Your task to perform on an android device: open app "Reddit" (install if not already installed), go to login, and select forgot password Image 0: 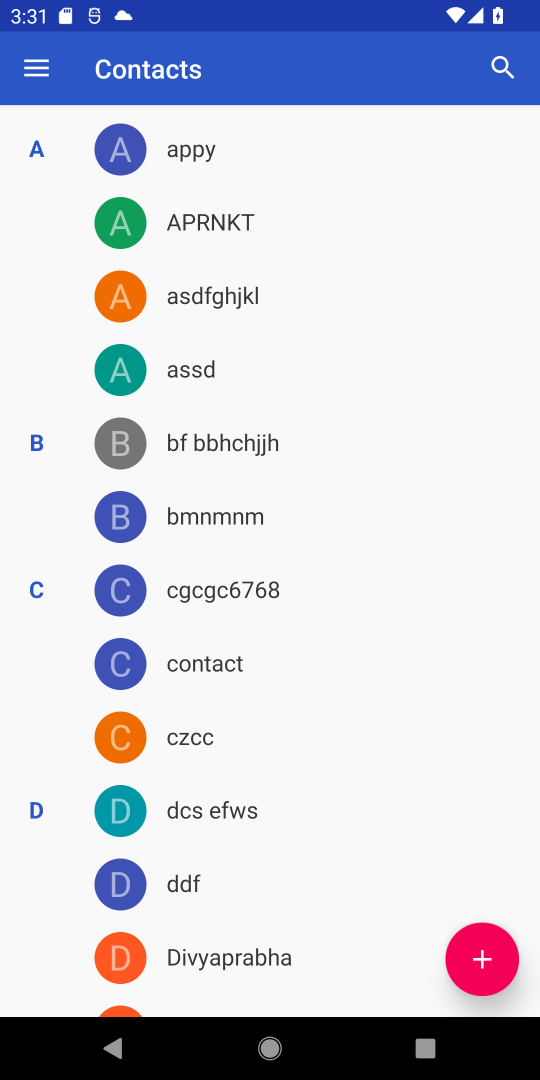
Step 0: press home button
Your task to perform on an android device: open app "Reddit" (install if not already installed), go to login, and select forgot password Image 1: 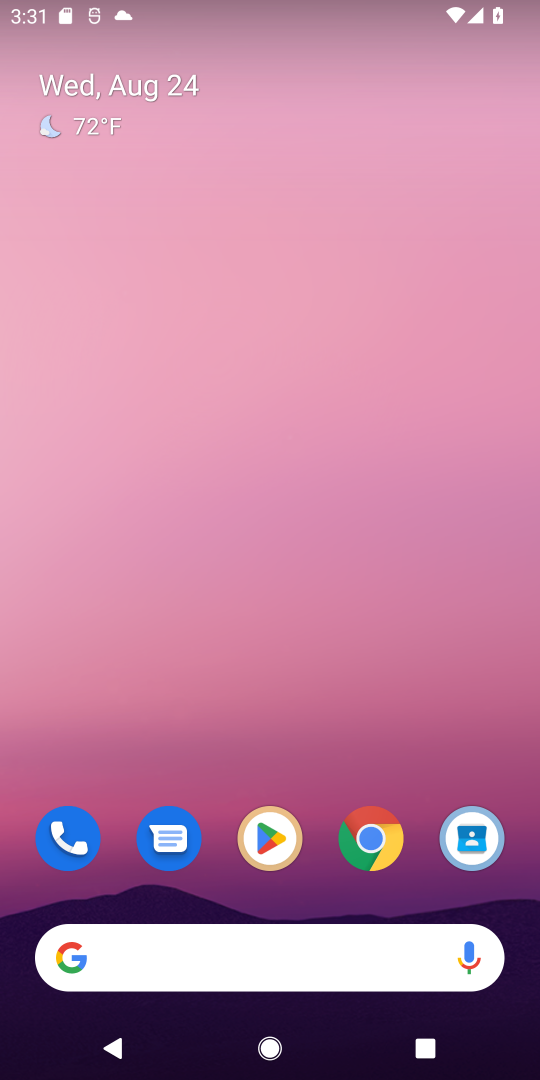
Step 1: click (266, 866)
Your task to perform on an android device: open app "Reddit" (install if not already installed), go to login, and select forgot password Image 2: 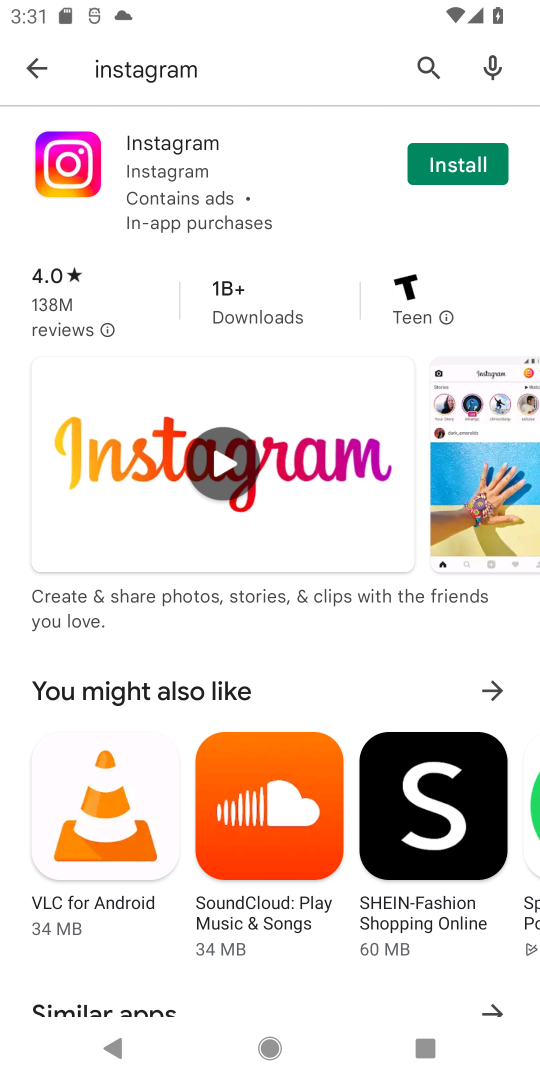
Step 2: click (45, 57)
Your task to perform on an android device: open app "Reddit" (install if not already installed), go to login, and select forgot password Image 3: 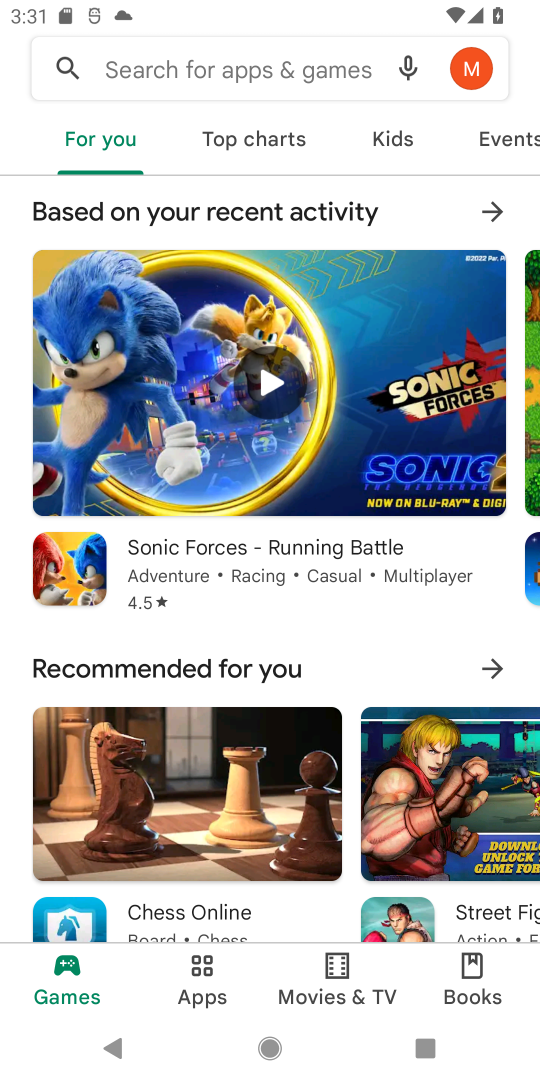
Step 3: click (188, 65)
Your task to perform on an android device: open app "Reddit" (install if not already installed), go to login, and select forgot password Image 4: 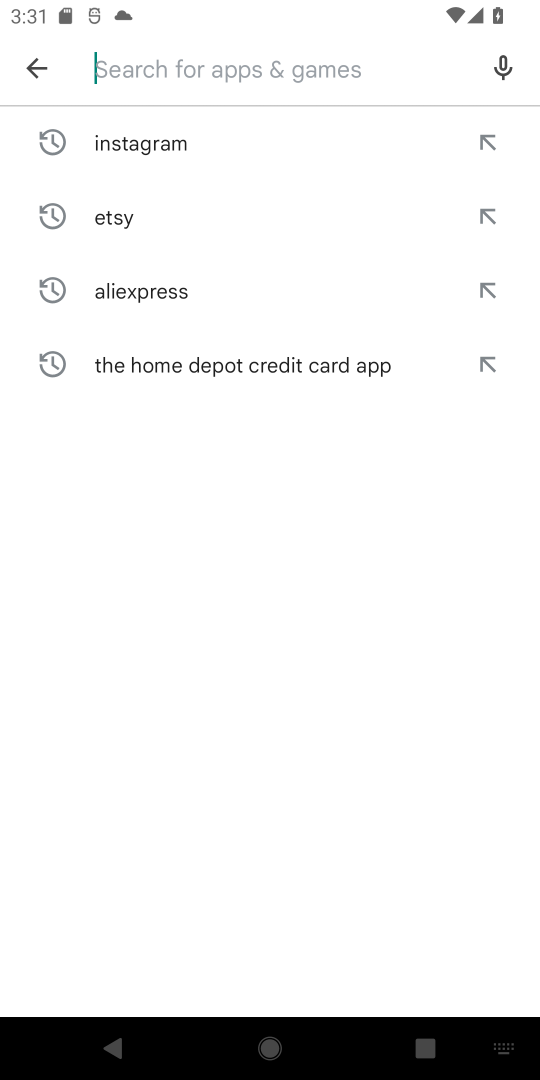
Step 4: type "Reddit"
Your task to perform on an android device: open app "Reddit" (install if not already installed), go to login, and select forgot password Image 5: 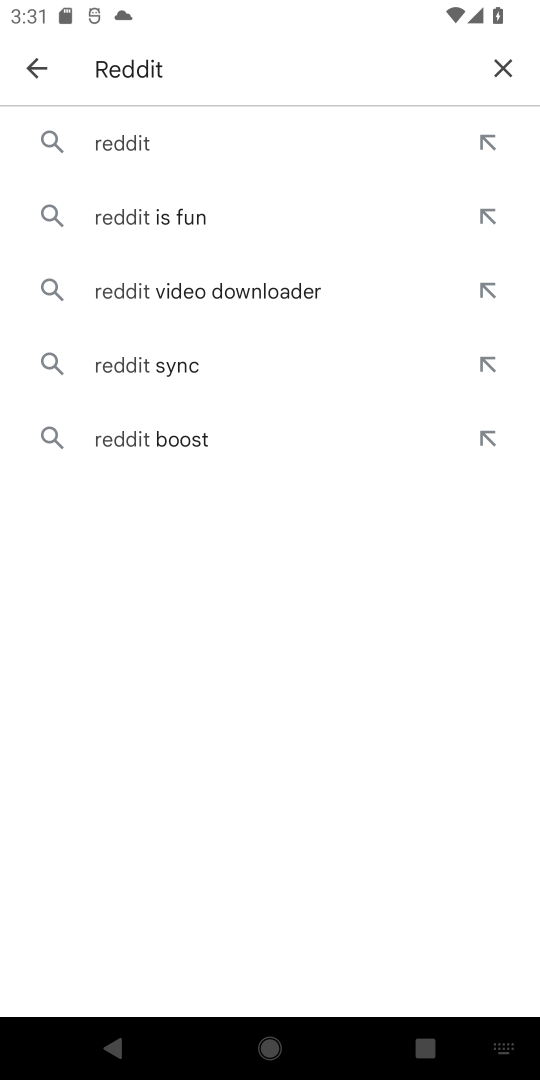
Step 5: click (120, 145)
Your task to perform on an android device: open app "Reddit" (install if not already installed), go to login, and select forgot password Image 6: 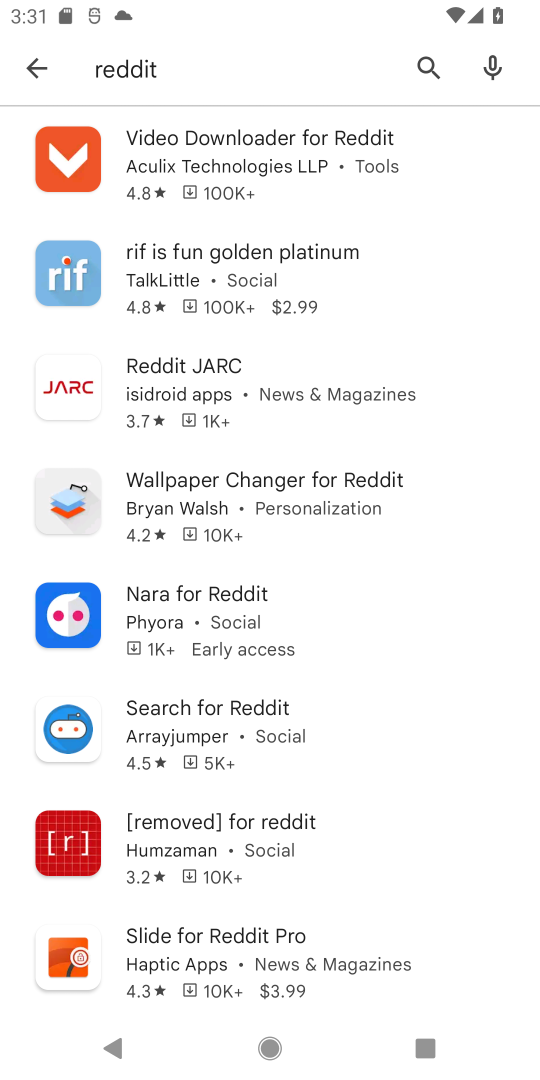
Step 6: task complete